Your task to perform on an android device: Open settings Image 0: 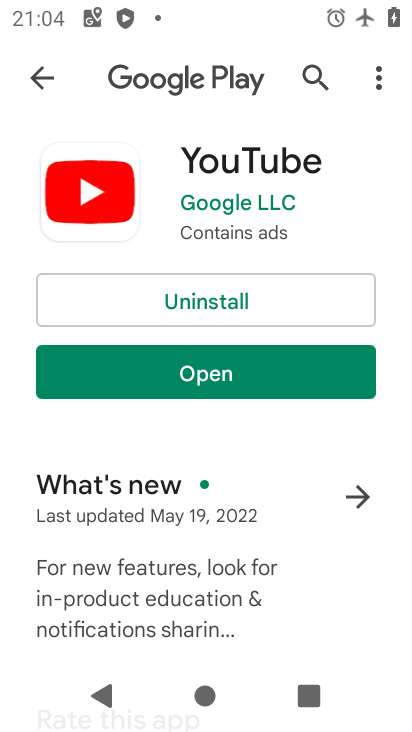
Step 0: press home button
Your task to perform on an android device: Open settings Image 1: 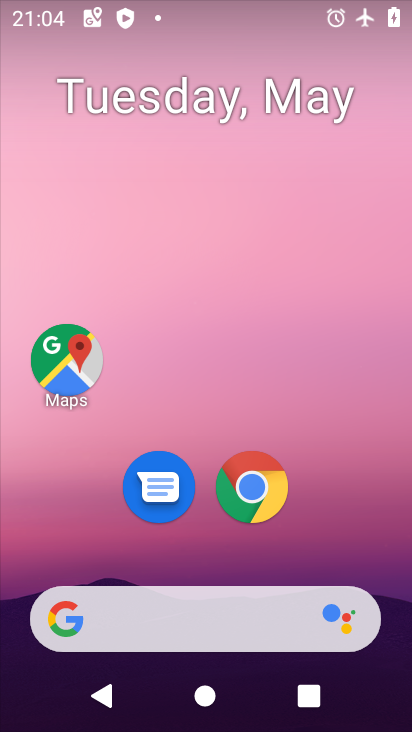
Step 1: drag from (346, 505) to (183, 10)
Your task to perform on an android device: Open settings Image 2: 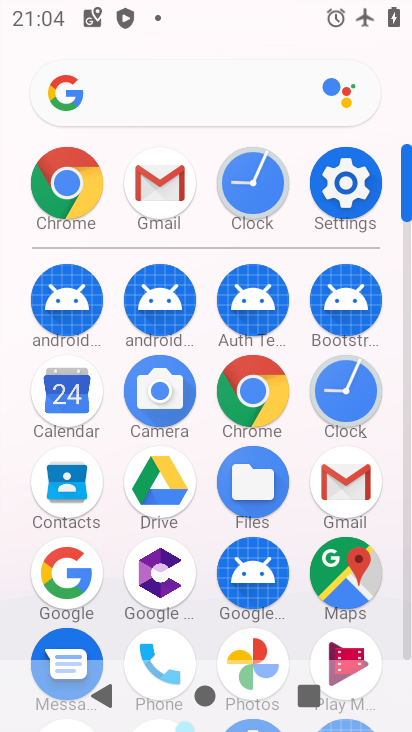
Step 2: click (342, 176)
Your task to perform on an android device: Open settings Image 3: 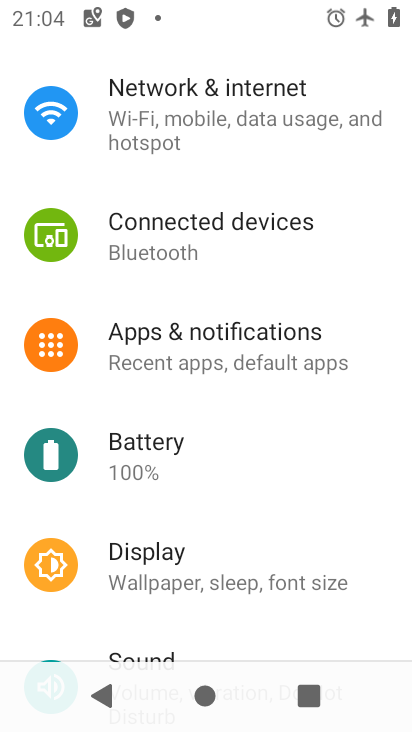
Step 3: click (199, 91)
Your task to perform on an android device: Open settings Image 4: 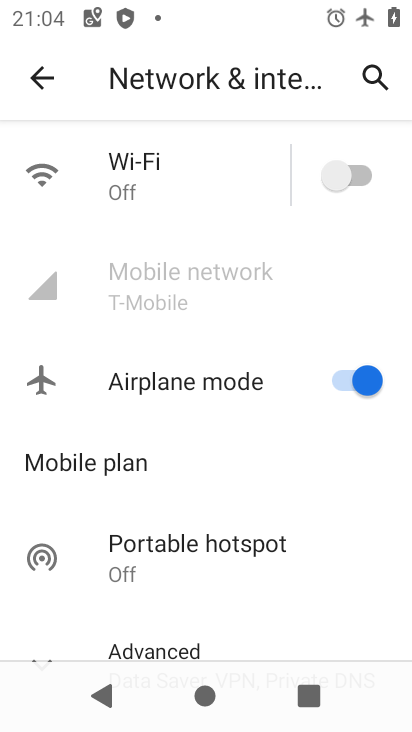
Step 4: task complete